Your task to perform on an android device: Open Chrome and go to the settings page Image 0: 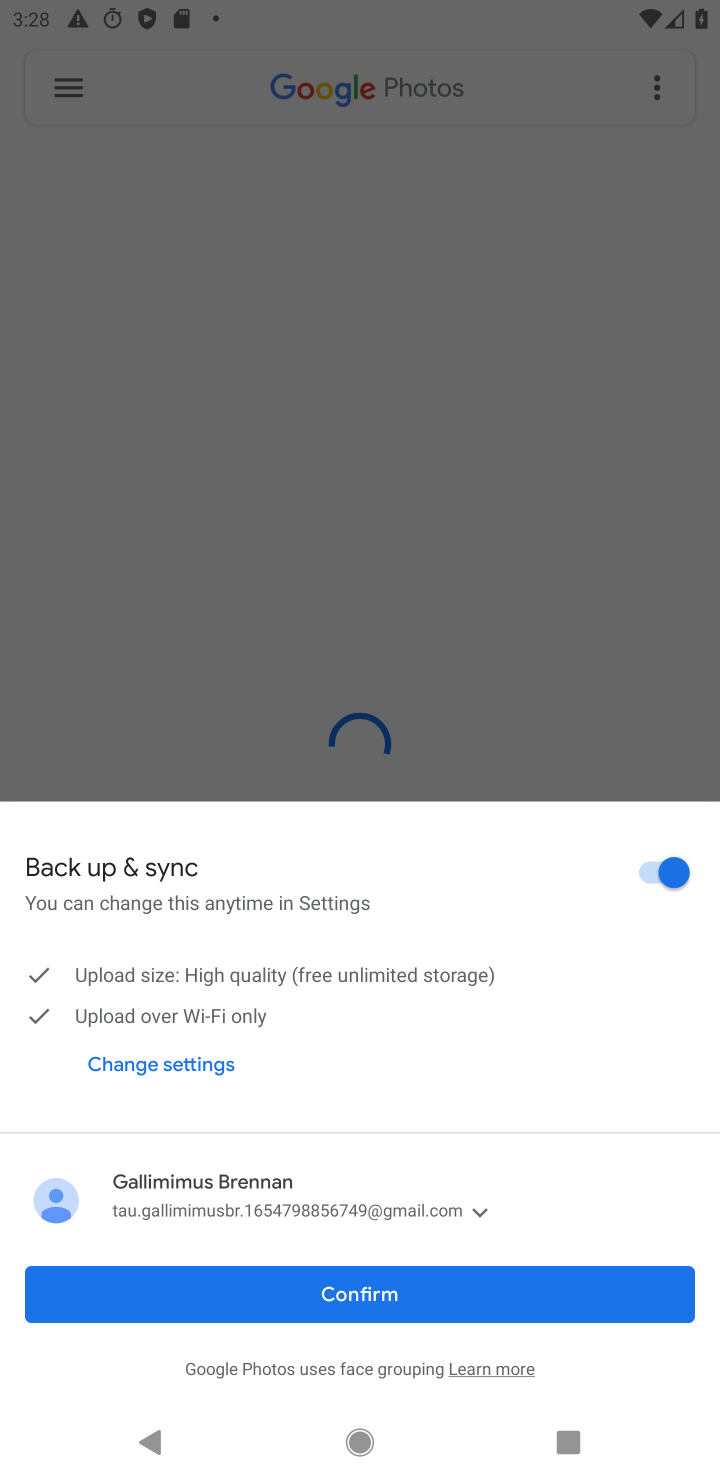
Step 0: press home button
Your task to perform on an android device: Open Chrome and go to the settings page Image 1: 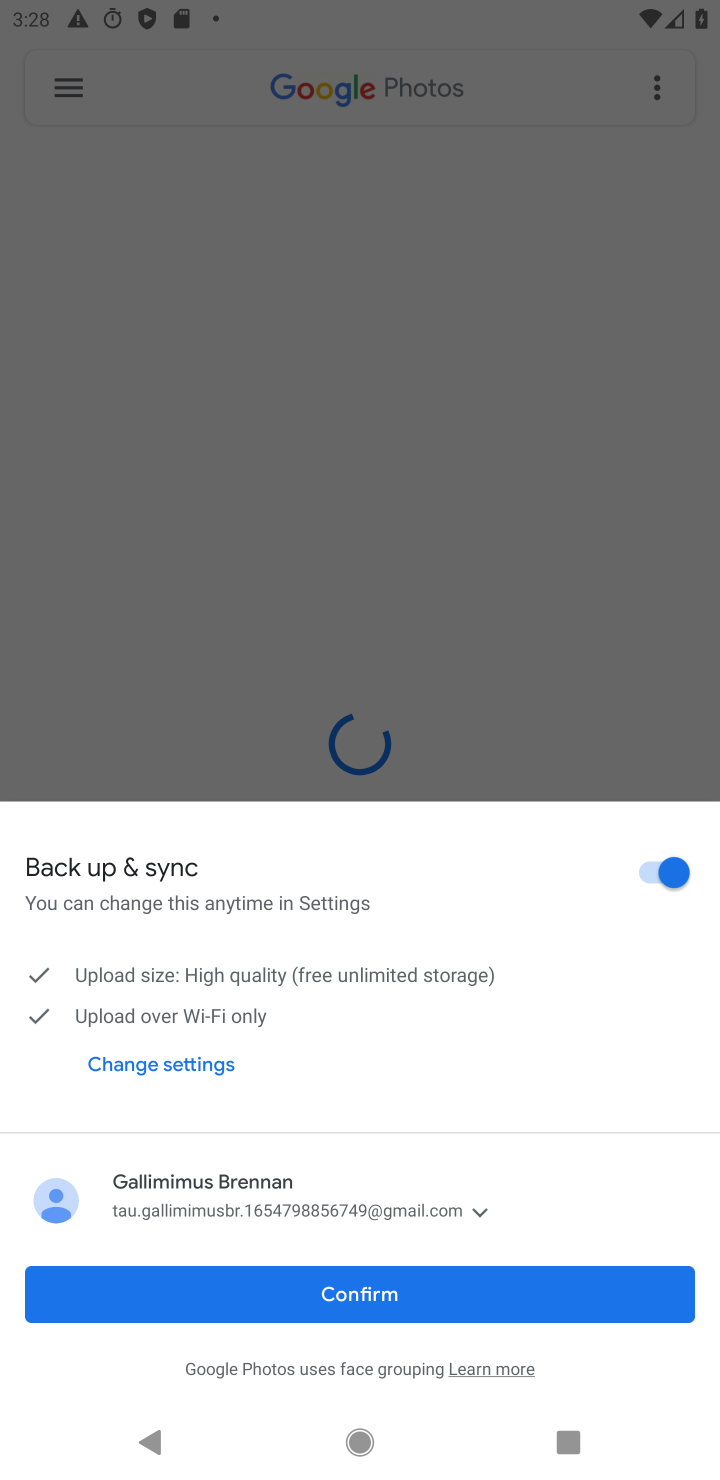
Step 1: press home button
Your task to perform on an android device: Open Chrome and go to the settings page Image 2: 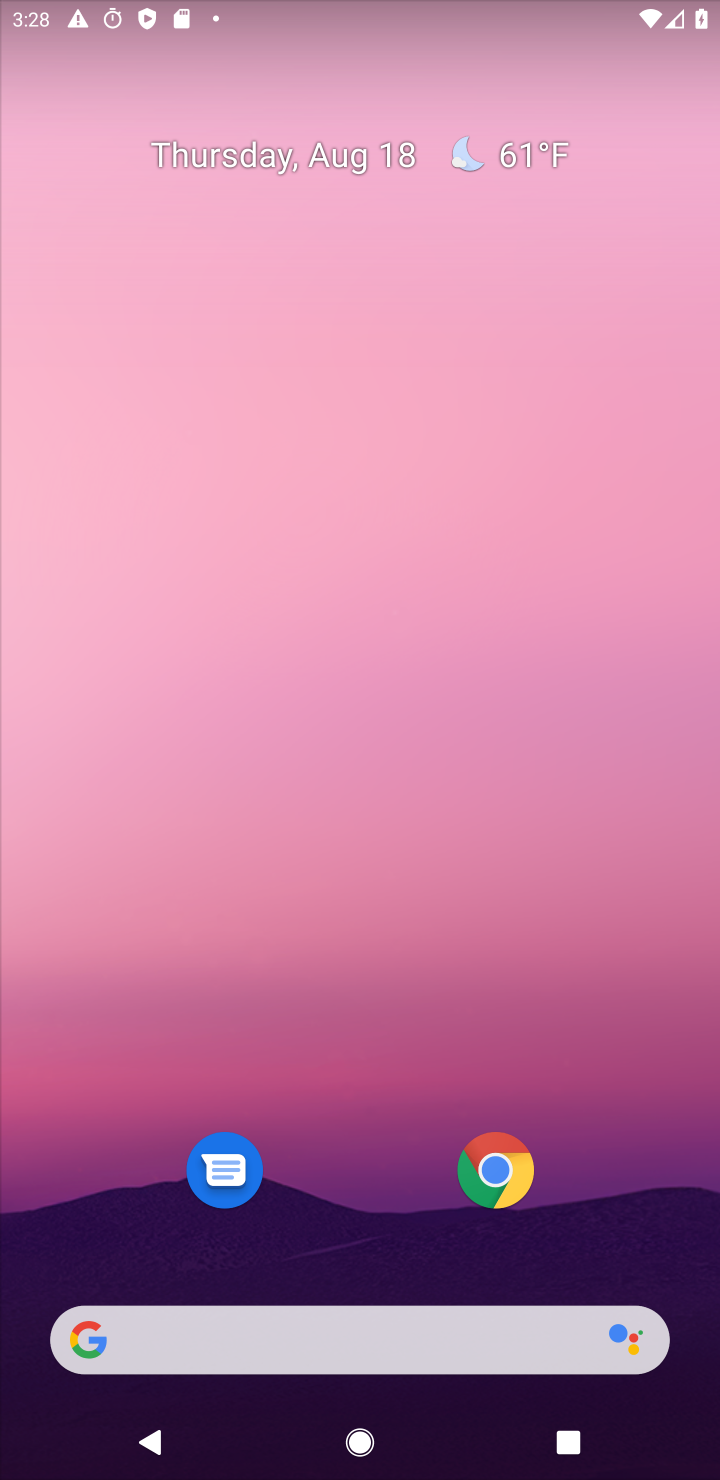
Step 2: click (515, 1161)
Your task to perform on an android device: Open Chrome and go to the settings page Image 3: 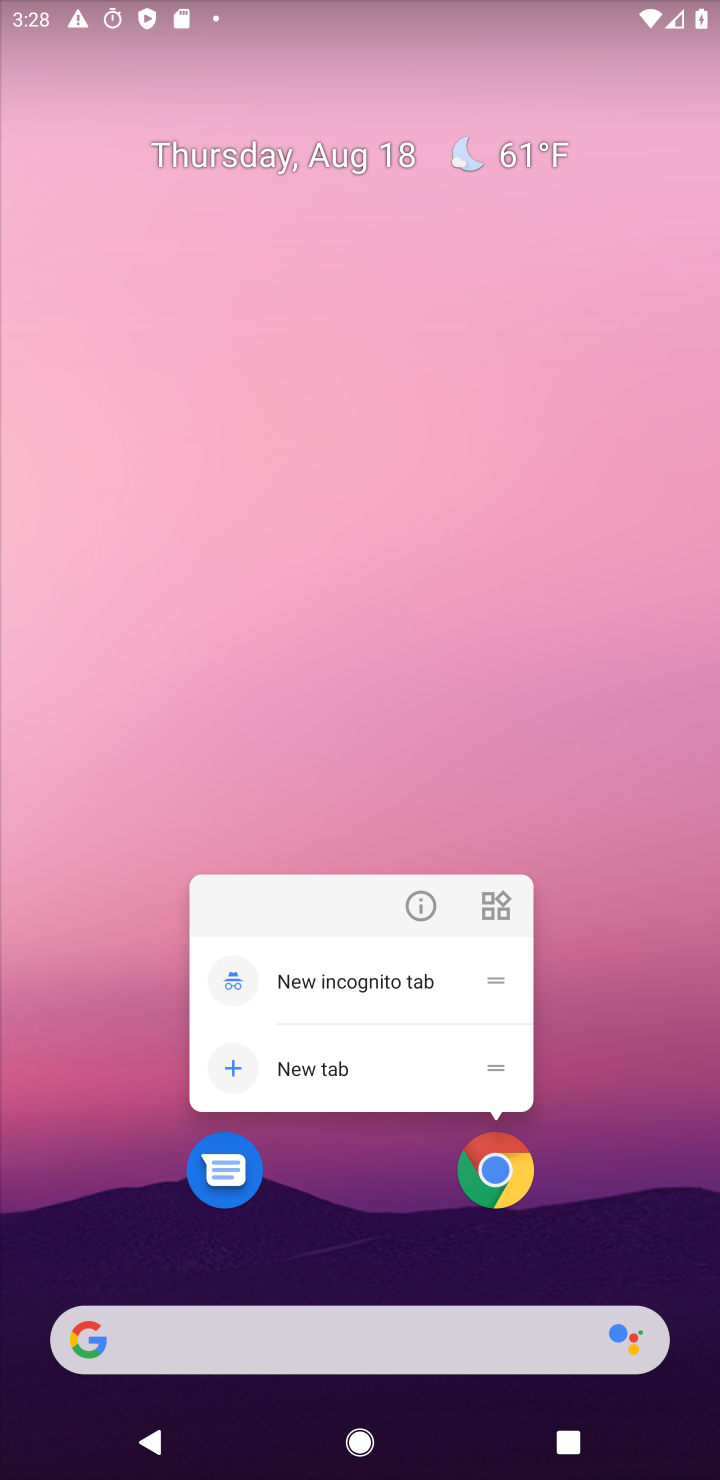
Step 3: click (515, 1161)
Your task to perform on an android device: Open Chrome and go to the settings page Image 4: 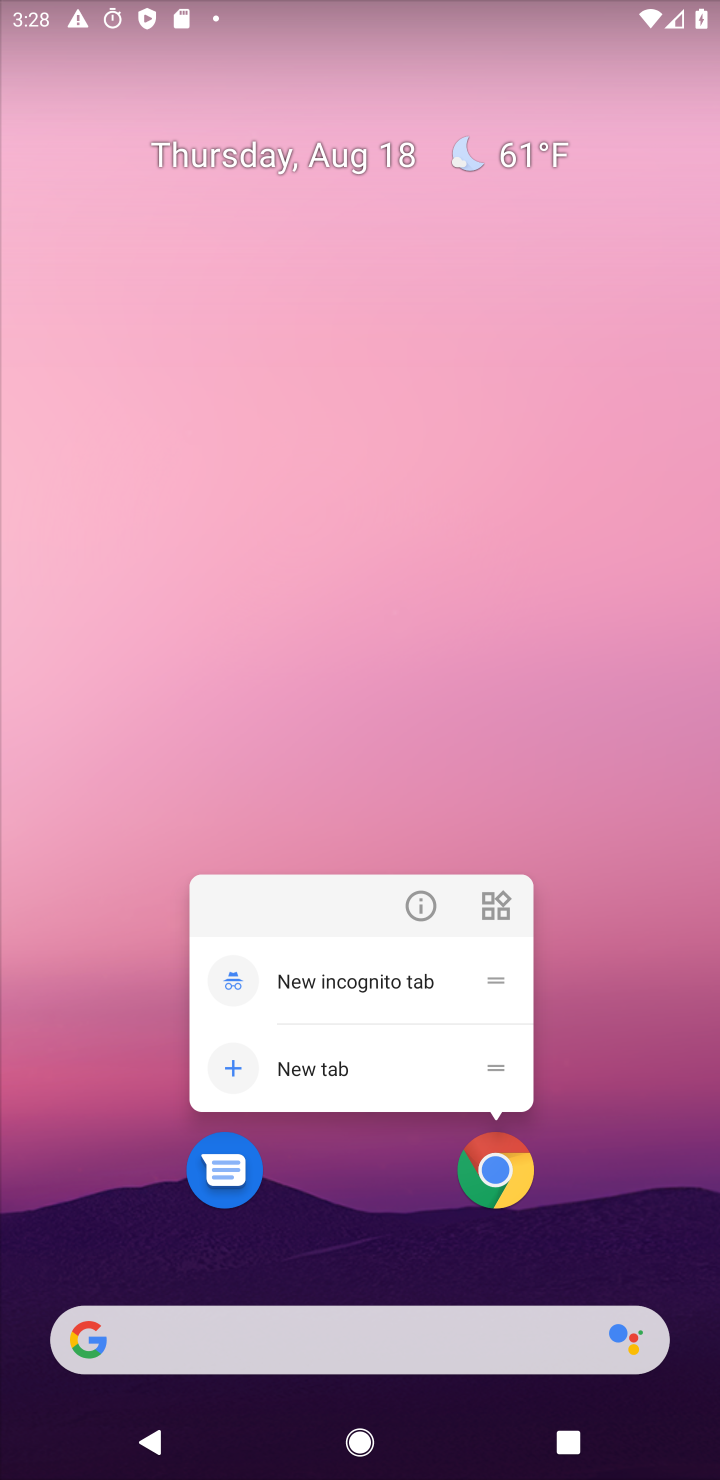
Step 4: task complete